Your task to perform on an android device: Open calendar and show me the fourth week of next month Image 0: 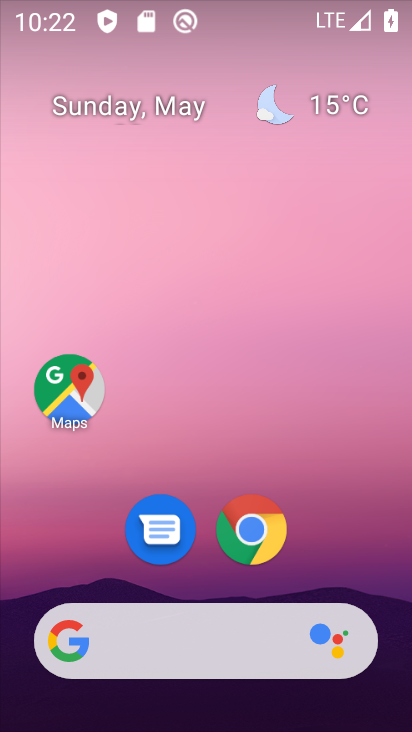
Step 0: drag from (173, 591) to (150, 0)
Your task to perform on an android device: Open calendar and show me the fourth week of next month Image 1: 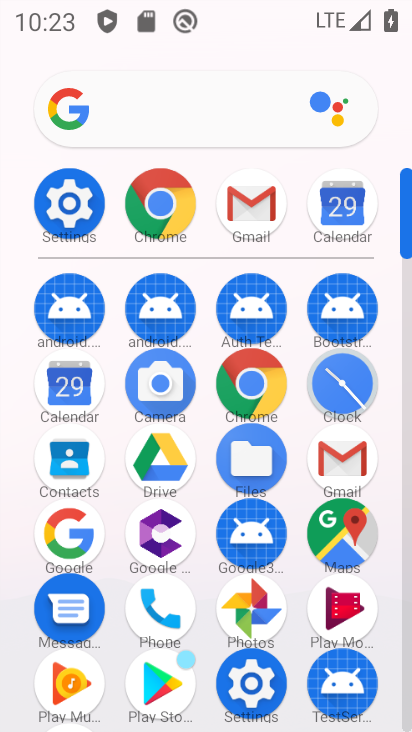
Step 1: click (38, 376)
Your task to perform on an android device: Open calendar and show me the fourth week of next month Image 2: 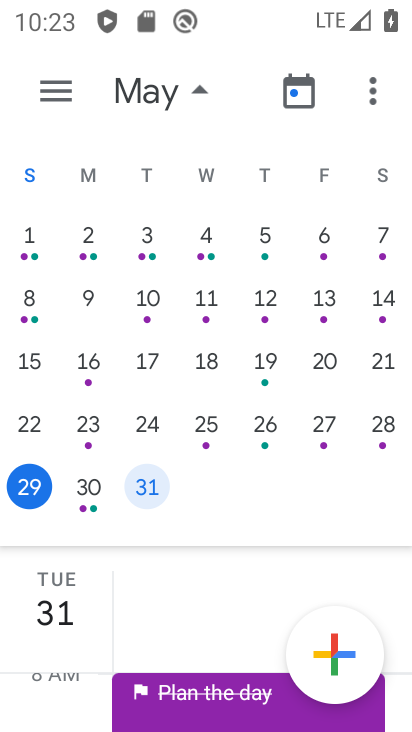
Step 2: drag from (265, 390) to (228, 392)
Your task to perform on an android device: Open calendar and show me the fourth week of next month Image 3: 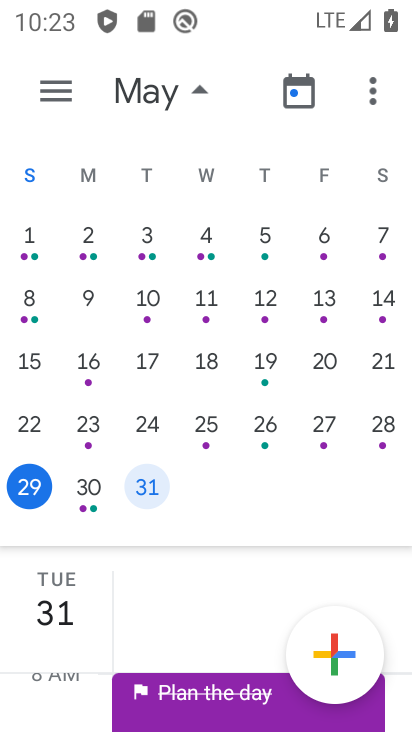
Step 3: drag from (377, 314) to (1, 306)
Your task to perform on an android device: Open calendar and show me the fourth week of next month Image 4: 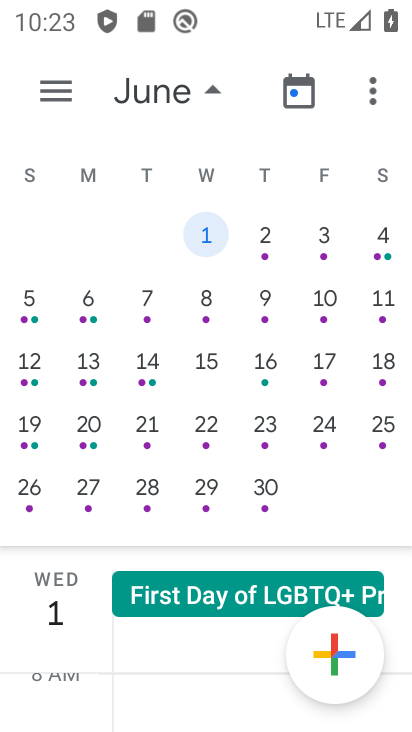
Step 4: click (201, 424)
Your task to perform on an android device: Open calendar and show me the fourth week of next month Image 5: 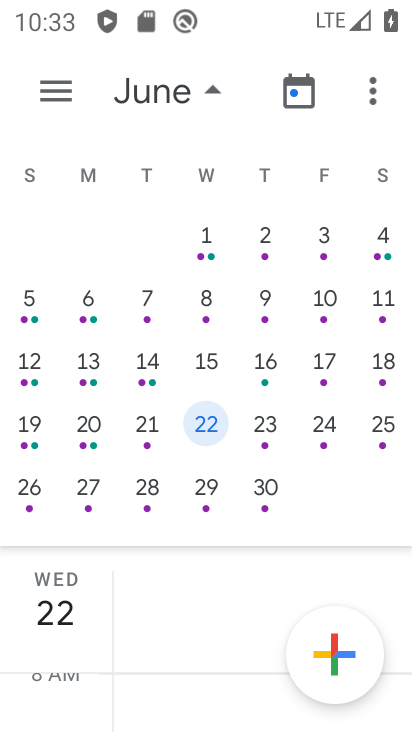
Step 5: task complete